Your task to perform on an android device: turn off smart reply in the gmail app Image 0: 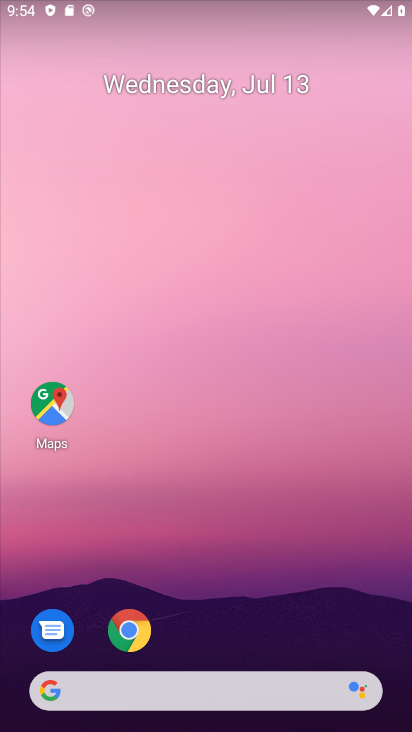
Step 0: drag from (252, 599) to (273, 47)
Your task to perform on an android device: turn off smart reply in the gmail app Image 1: 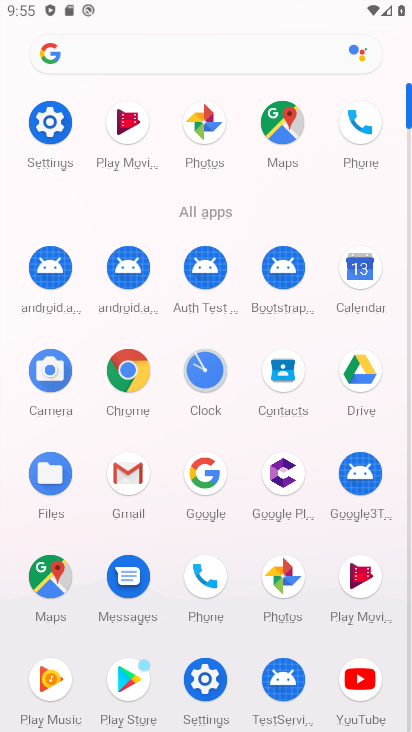
Step 1: click (124, 466)
Your task to perform on an android device: turn off smart reply in the gmail app Image 2: 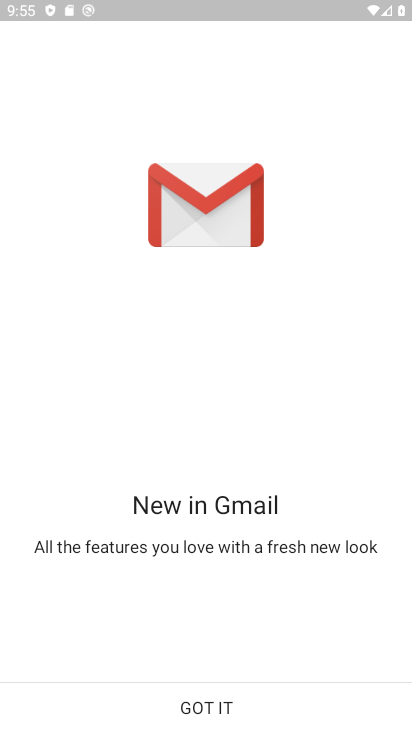
Step 2: click (197, 706)
Your task to perform on an android device: turn off smart reply in the gmail app Image 3: 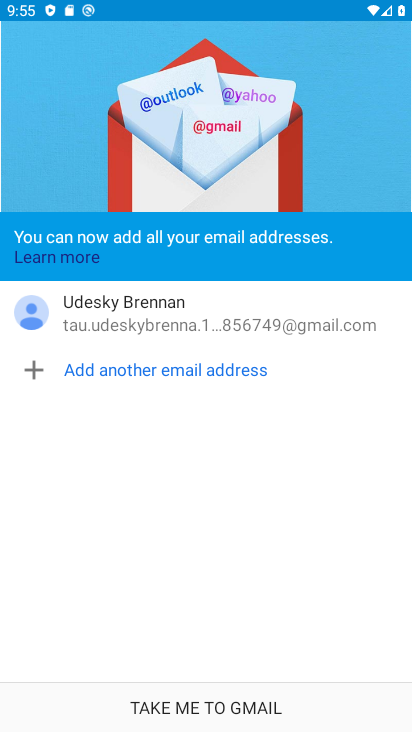
Step 3: click (197, 706)
Your task to perform on an android device: turn off smart reply in the gmail app Image 4: 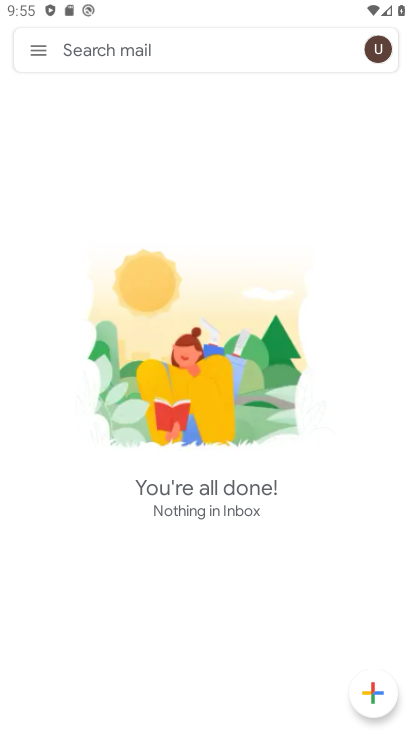
Step 4: click (28, 57)
Your task to perform on an android device: turn off smart reply in the gmail app Image 5: 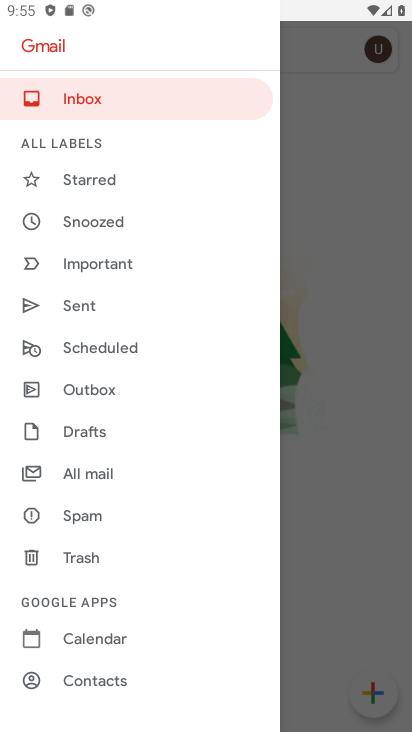
Step 5: drag from (113, 590) to (135, 127)
Your task to perform on an android device: turn off smart reply in the gmail app Image 6: 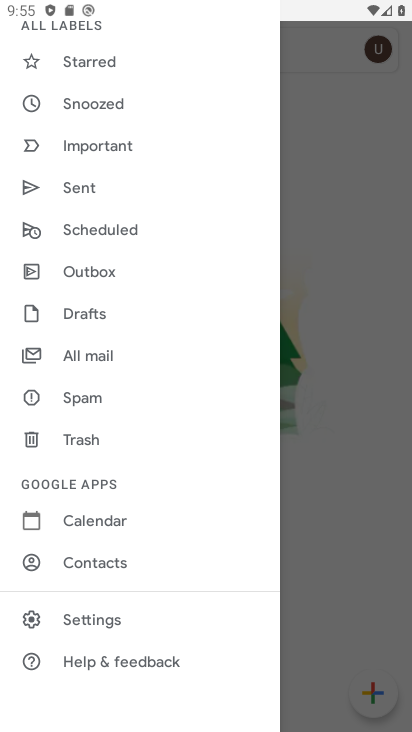
Step 6: click (94, 622)
Your task to perform on an android device: turn off smart reply in the gmail app Image 7: 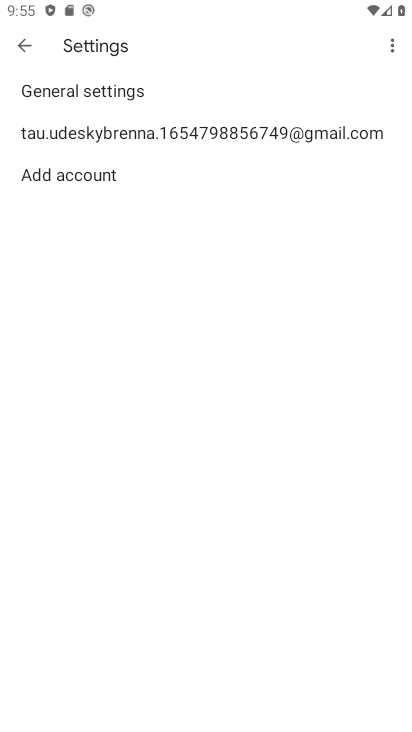
Step 7: click (309, 132)
Your task to perform on an android device: turn off smart reply in the gmail app Image 8: 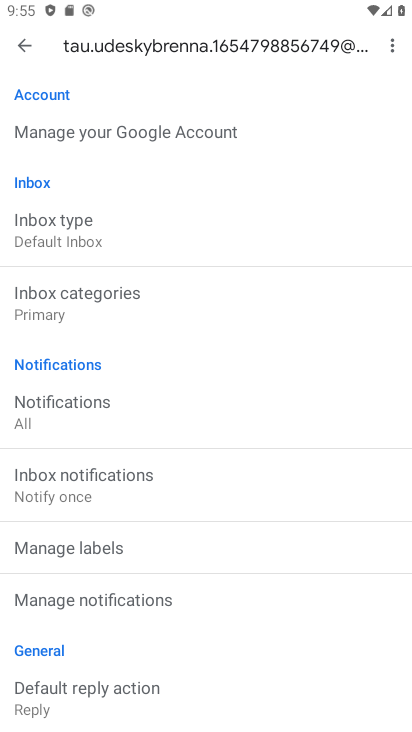
Step 8: drag from (170, 641) to (158, 392)
Your task to perform on an android device: turn off smart reply in the gmail app Image 9: 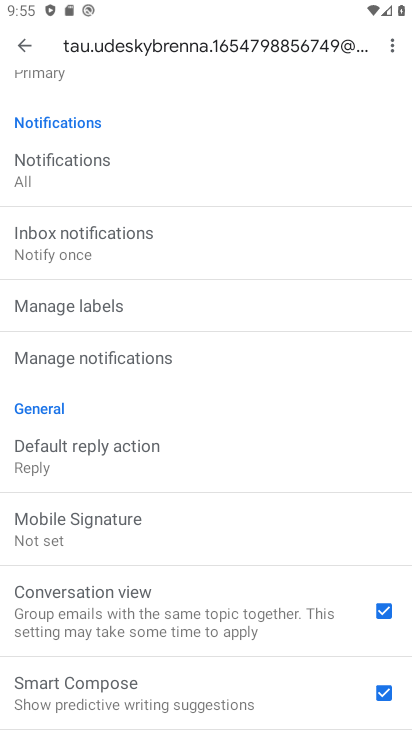
Step 9: drag from (305, 675) to (305, 368)
Your task to perform on an android device: turn off smart reply in the gmail app Image 10: 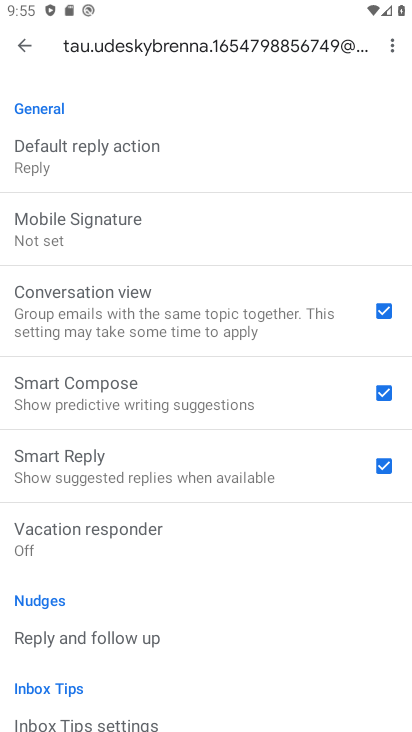
Step 10: click (371, 454)
Your task to perform on an android device: turn off smart reply in the gmail app Image 11: 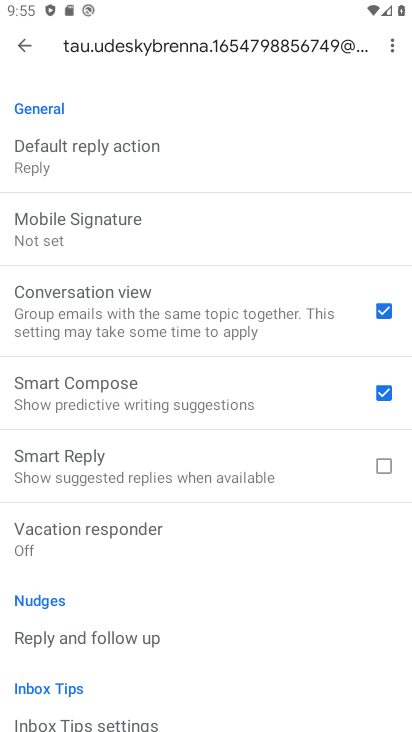
Step 11: task complete